Your task to perform on an android device: open app "eBay: The shopping marketplace" (install if not already installed) Image 0: 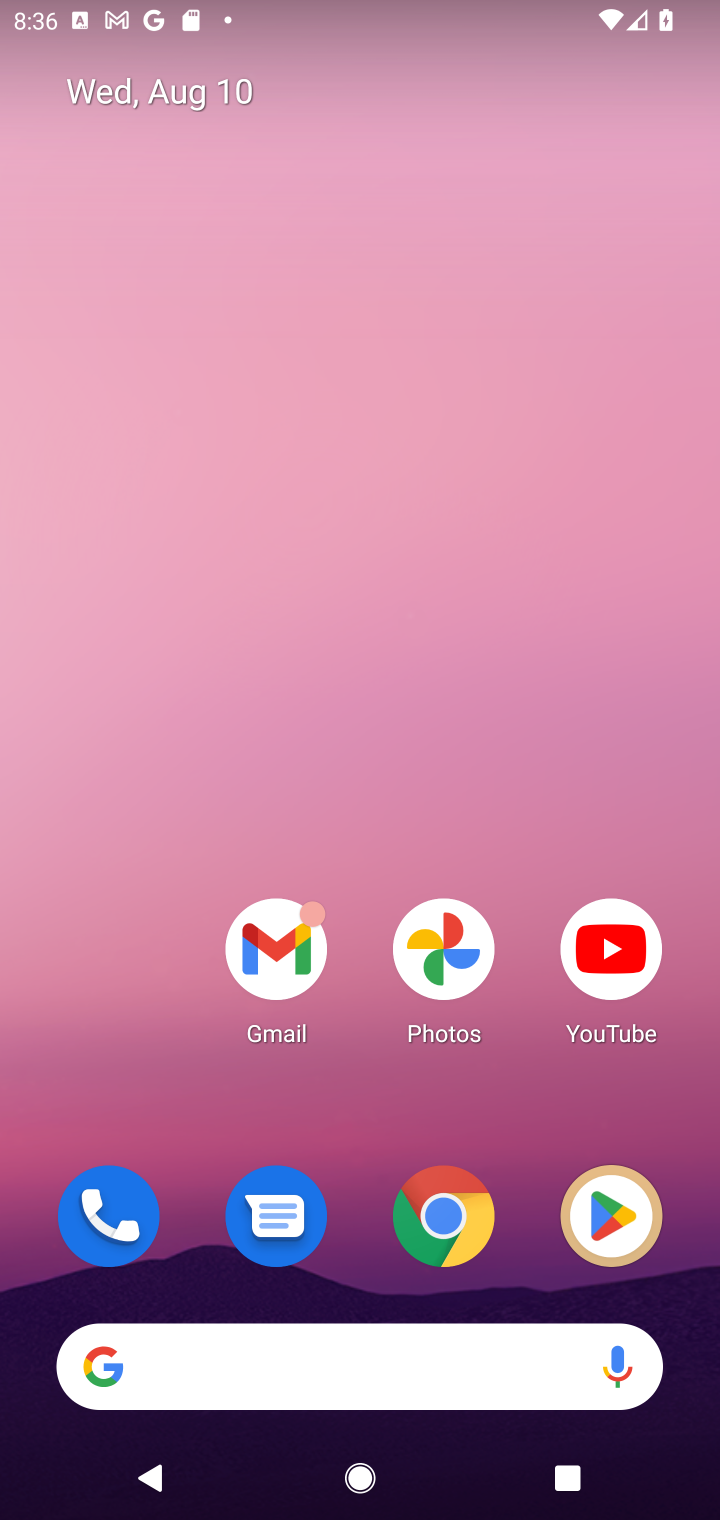
Step 0: click (609, 1202)
Your task to perform on an android device: open app "eBay: The shopping marketplace" (install if not already installed) Image 1: 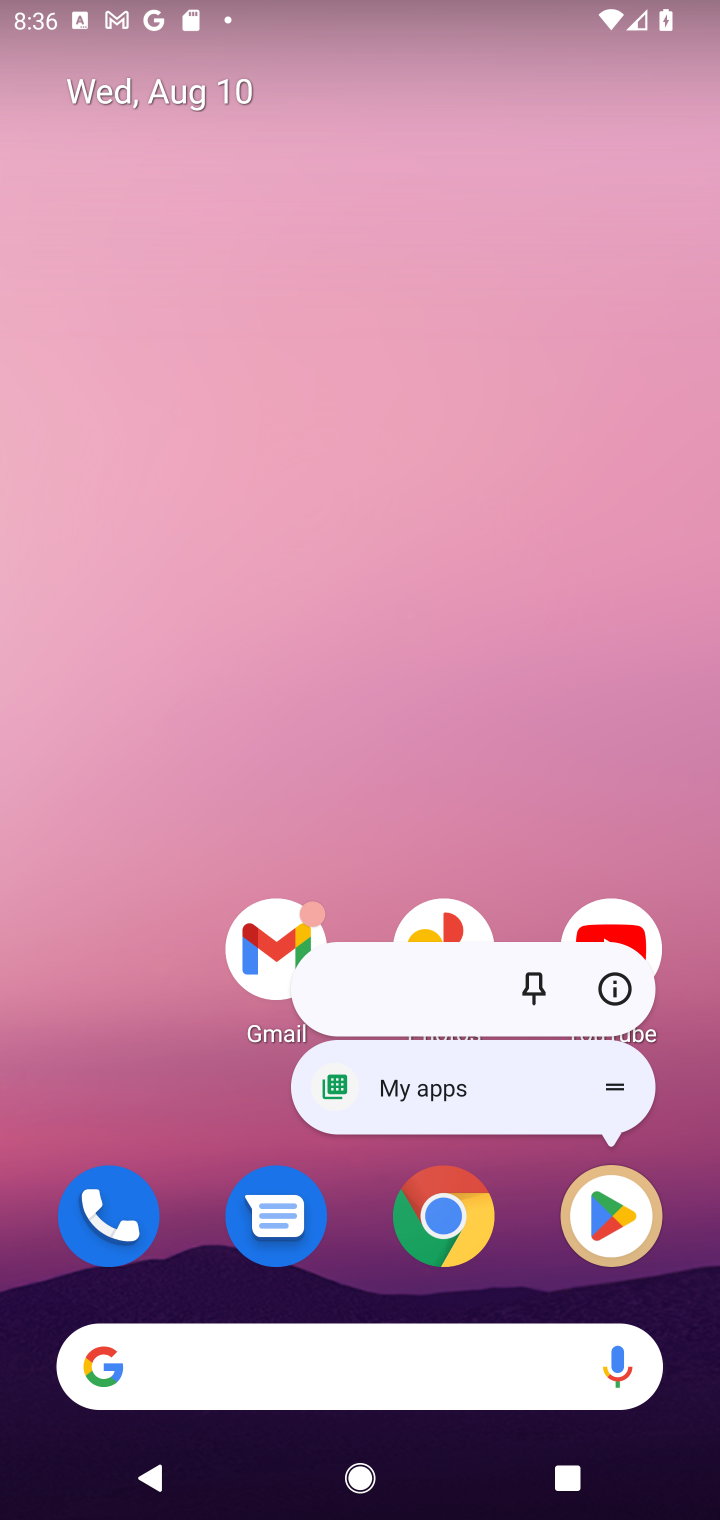
Step 1: click (627, 1208)
Your task to perform on an android device: open app "eBay: The shopping marketplace" (install if not already installed) Image 2: 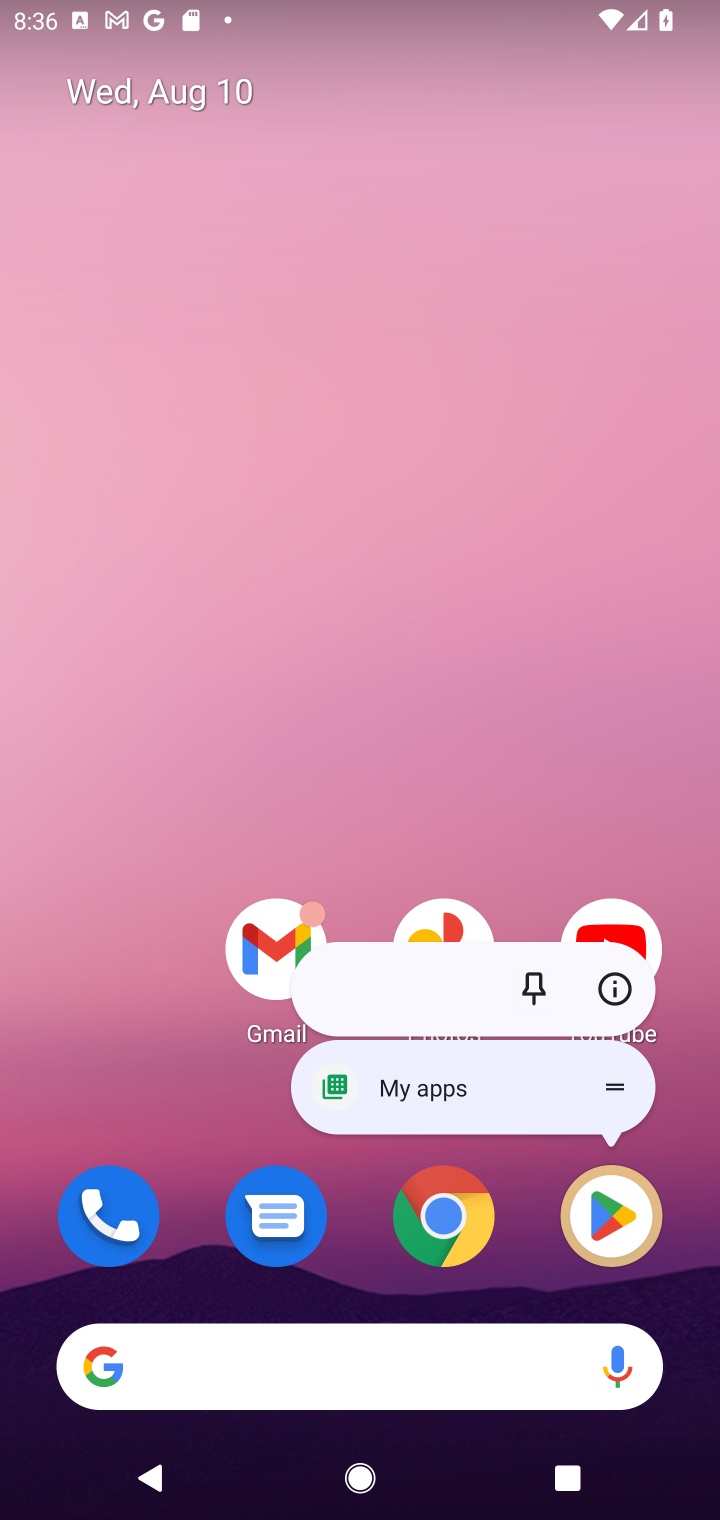
Step 2: click (605, 1211)
Your task to perform on an android device: open app "eBay: The shopping marketplace" (install if not already installed) Image 3: 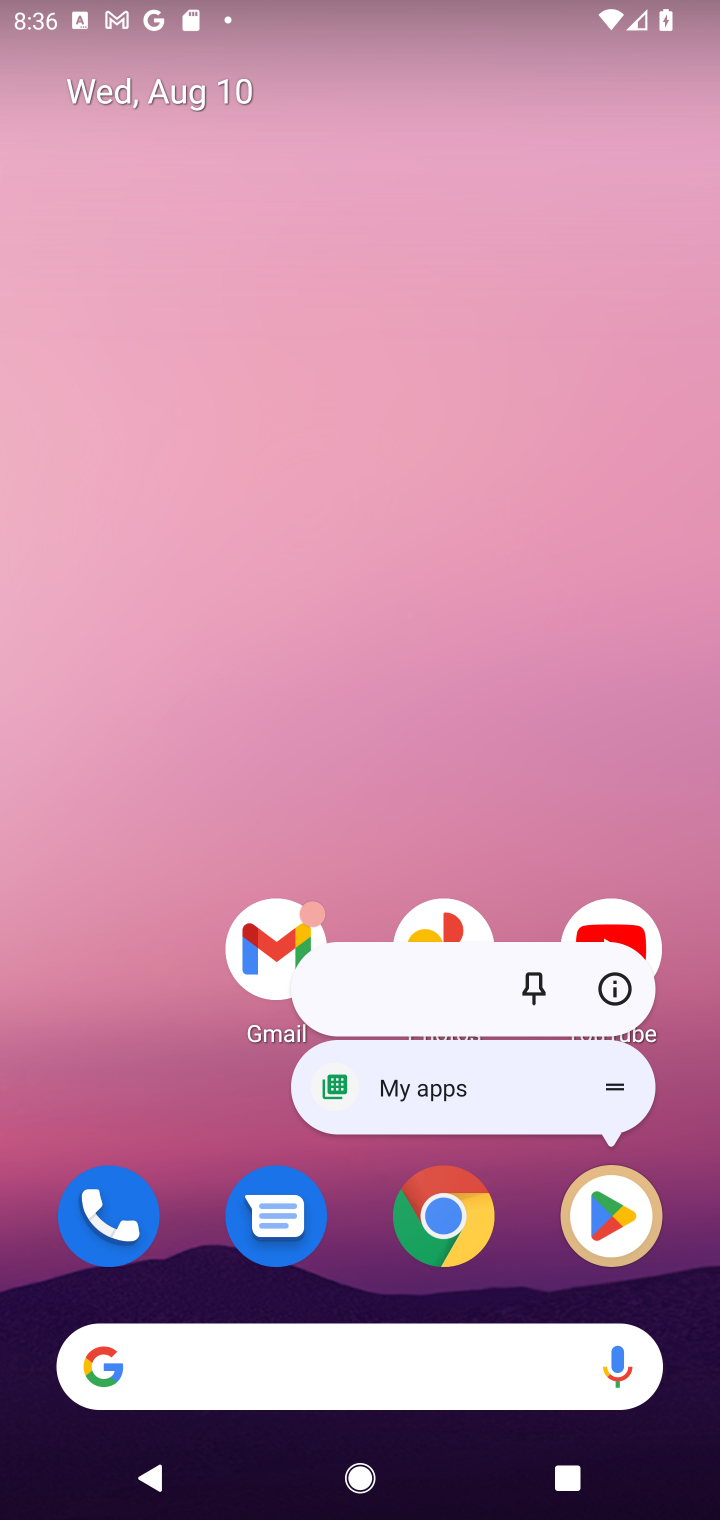
Step 3: click (613, 1220)
Your task to perform on an android device: open app "eBay: The shopping marketplace" (install if not already installed) Image 4: 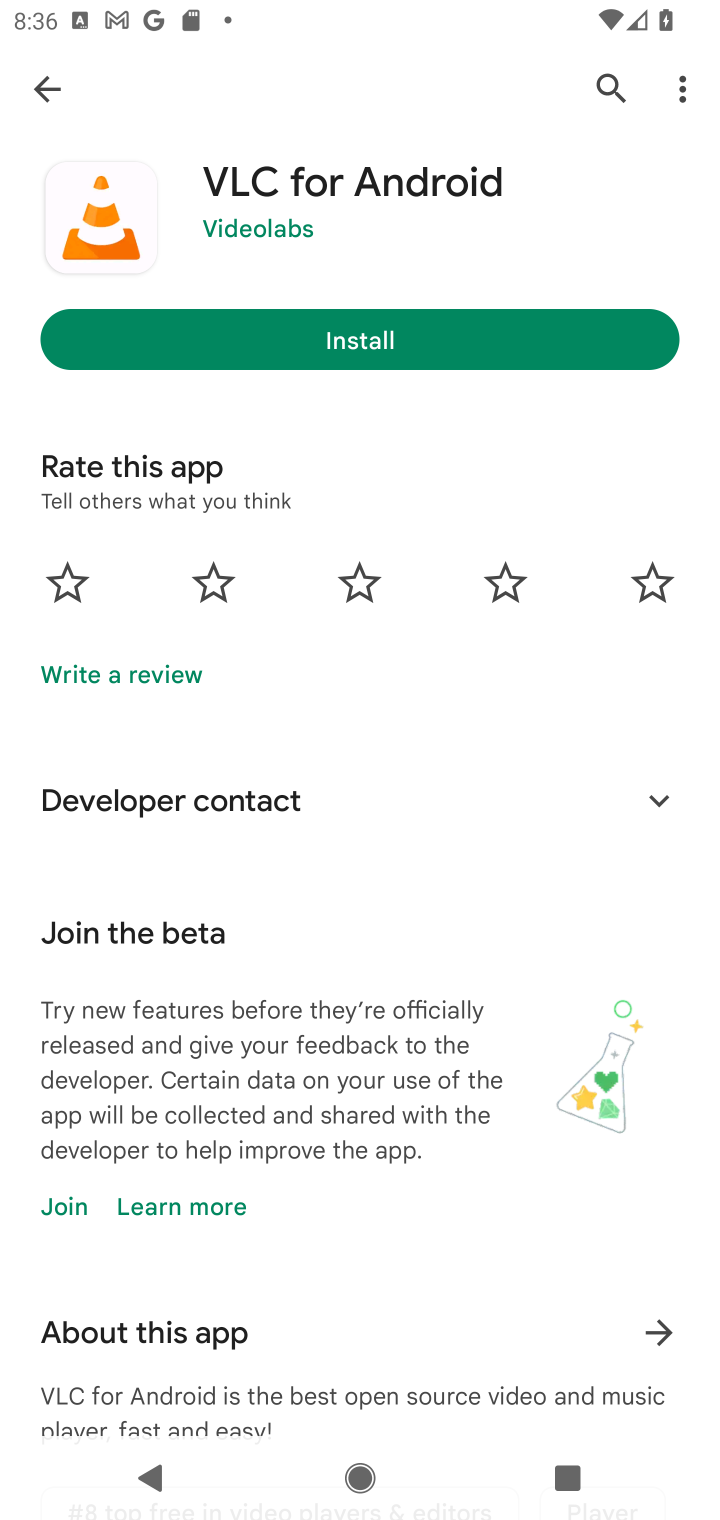
Step 4: click (599, 76)
Your task to perform on an android device: open app "eBay: The shopping marketplace" (install if not already installed) Image 5: 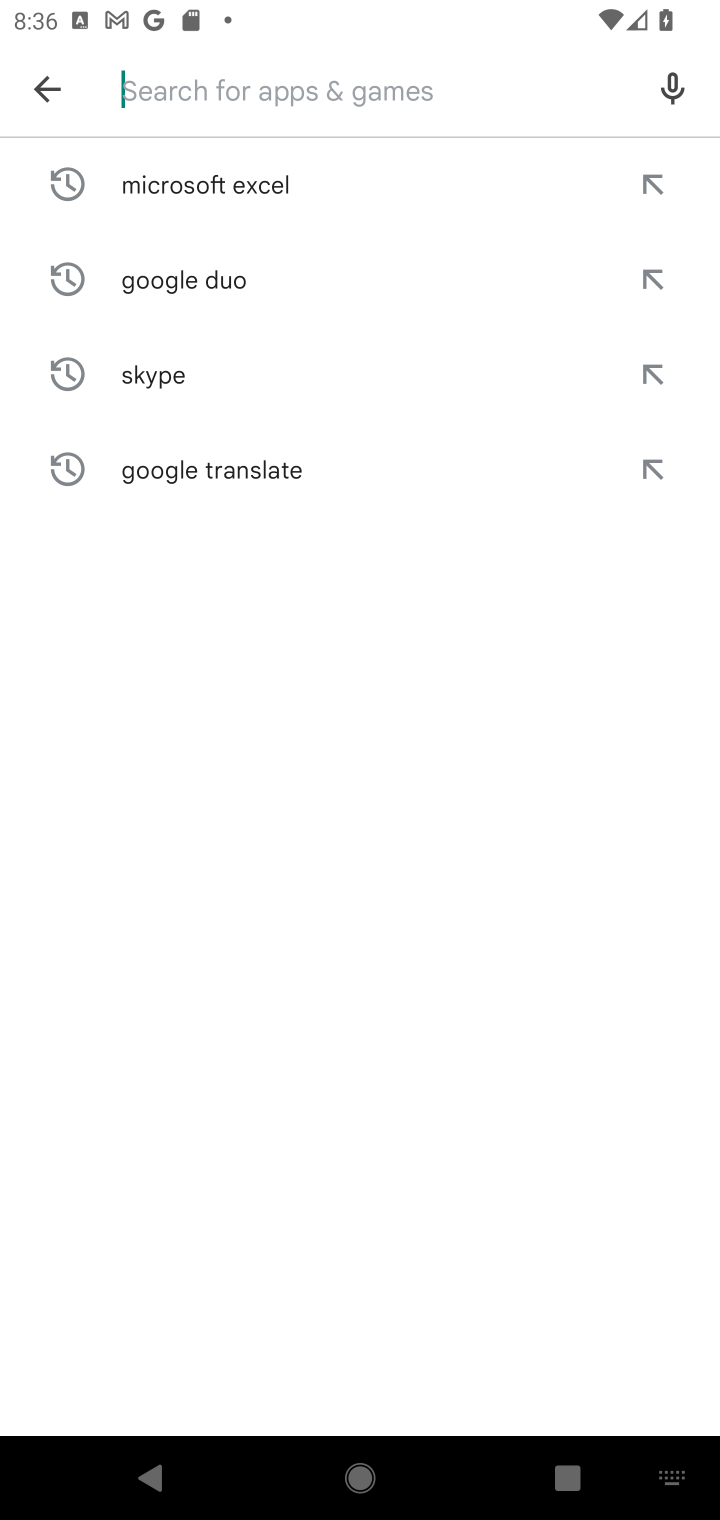
Step 5: click (294, 93)
Your task to perform on an android device: open app "eBay: The shopping marketplace" (install if not already installed) Image 6: 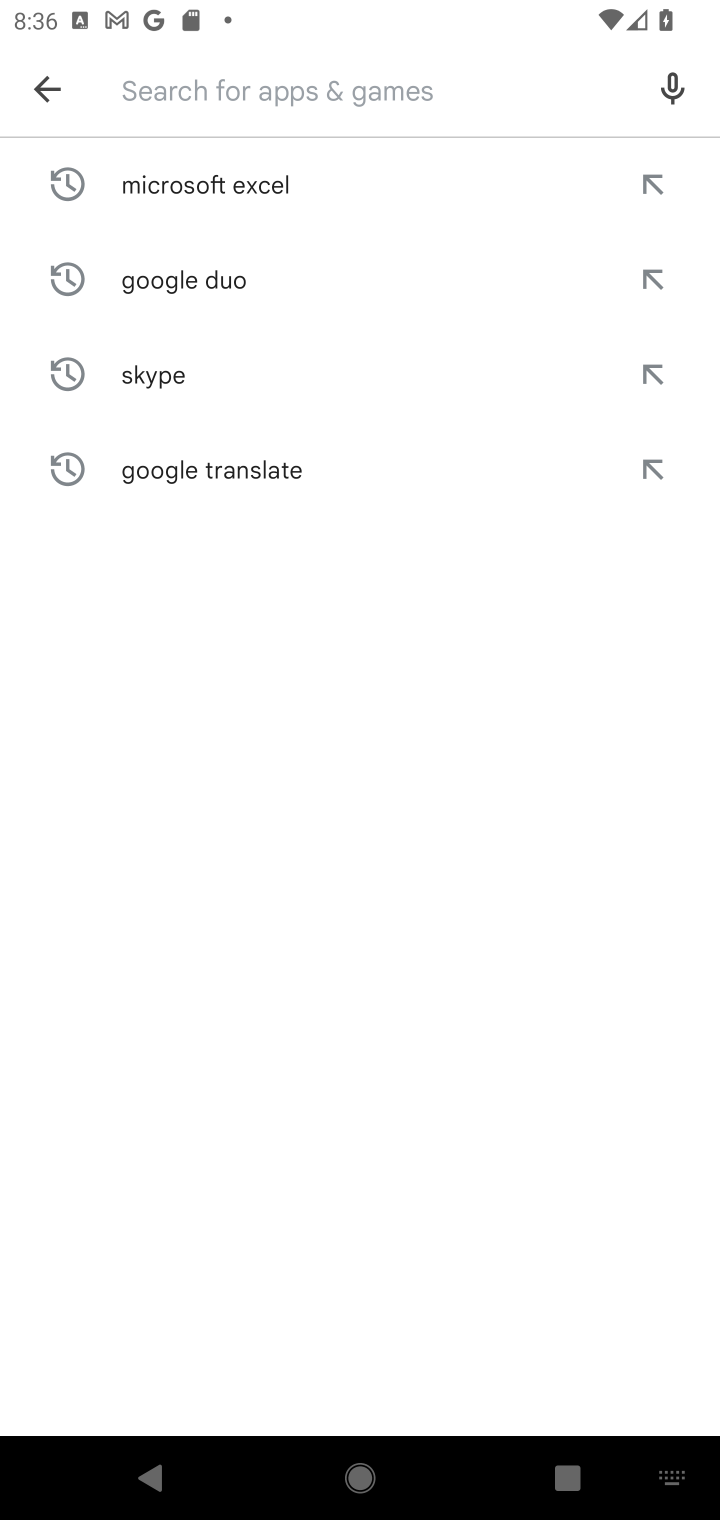
Step 6: type "ebay"
Your task to perform on an android device: open app "eBay: The shopping marketplace" (install if not already installed) Image 7: 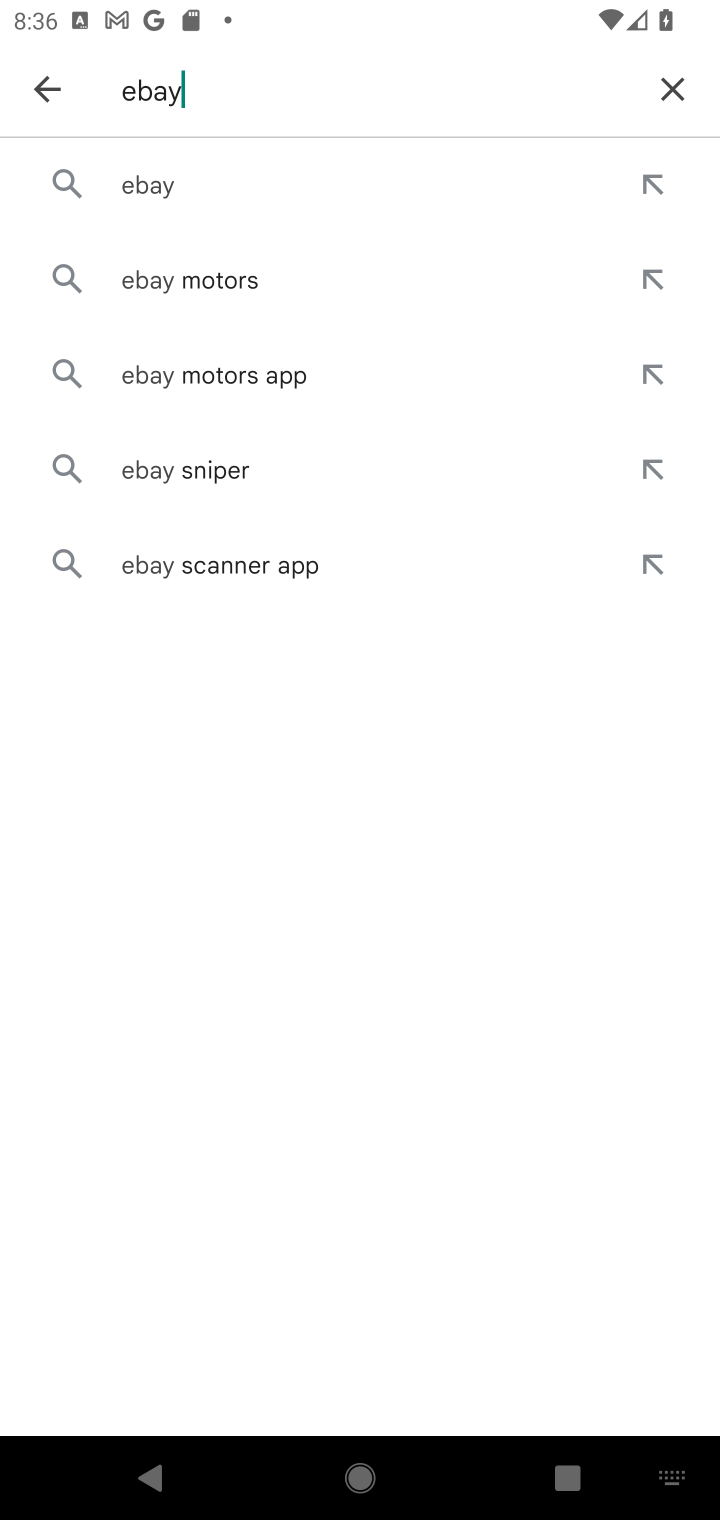
Step 7: click (256, 190)
Your task to perform on an android device: open app "eBay: The shopping marketplace" (install if not already installed) Image 8: 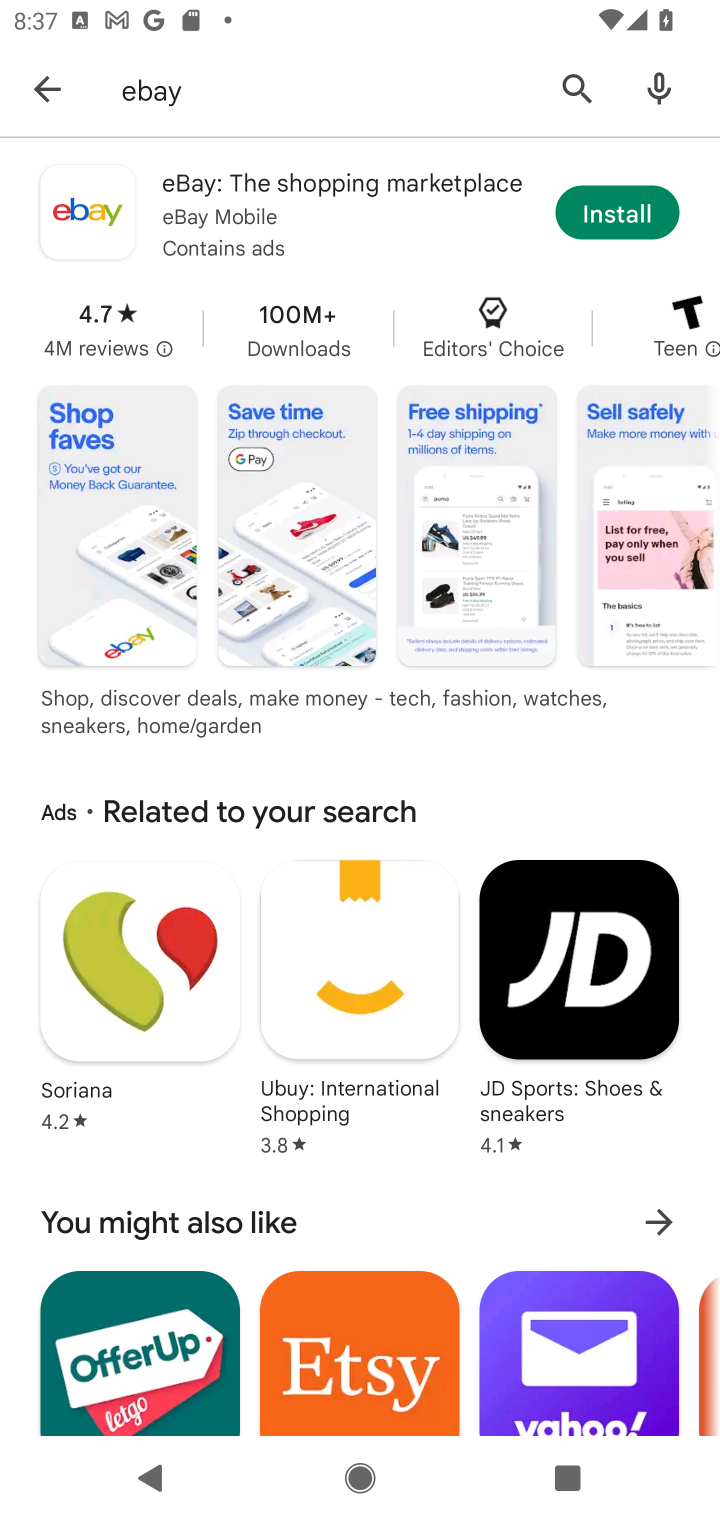
Step 8: click (597, 212)
Your task to perform on an android device: open app "eBay: The shopping marketplace" (install if not already installed) Image 9: 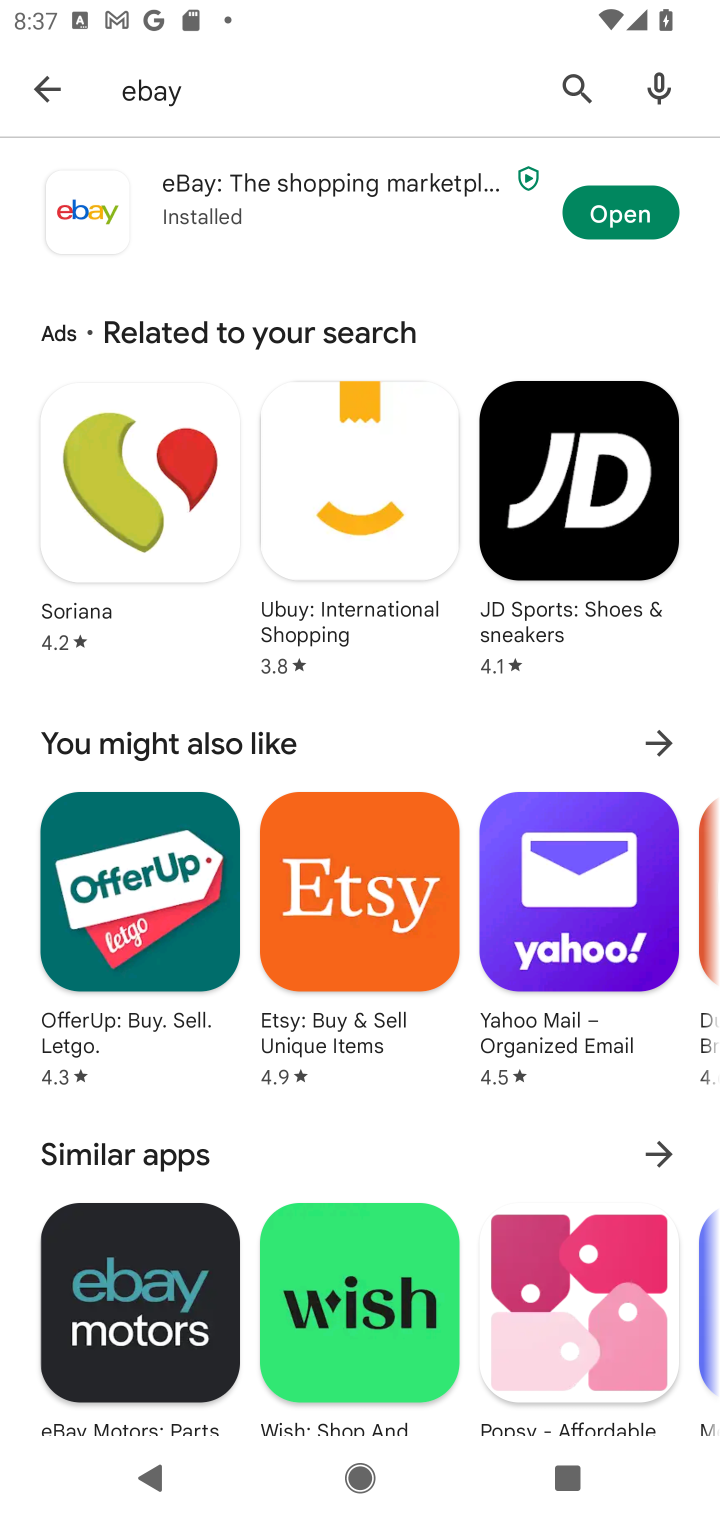
Step 9: press back button
Your task to perform on an android device: open app "eBay: The shopping marketplace" (install if not already installed) Image 10: 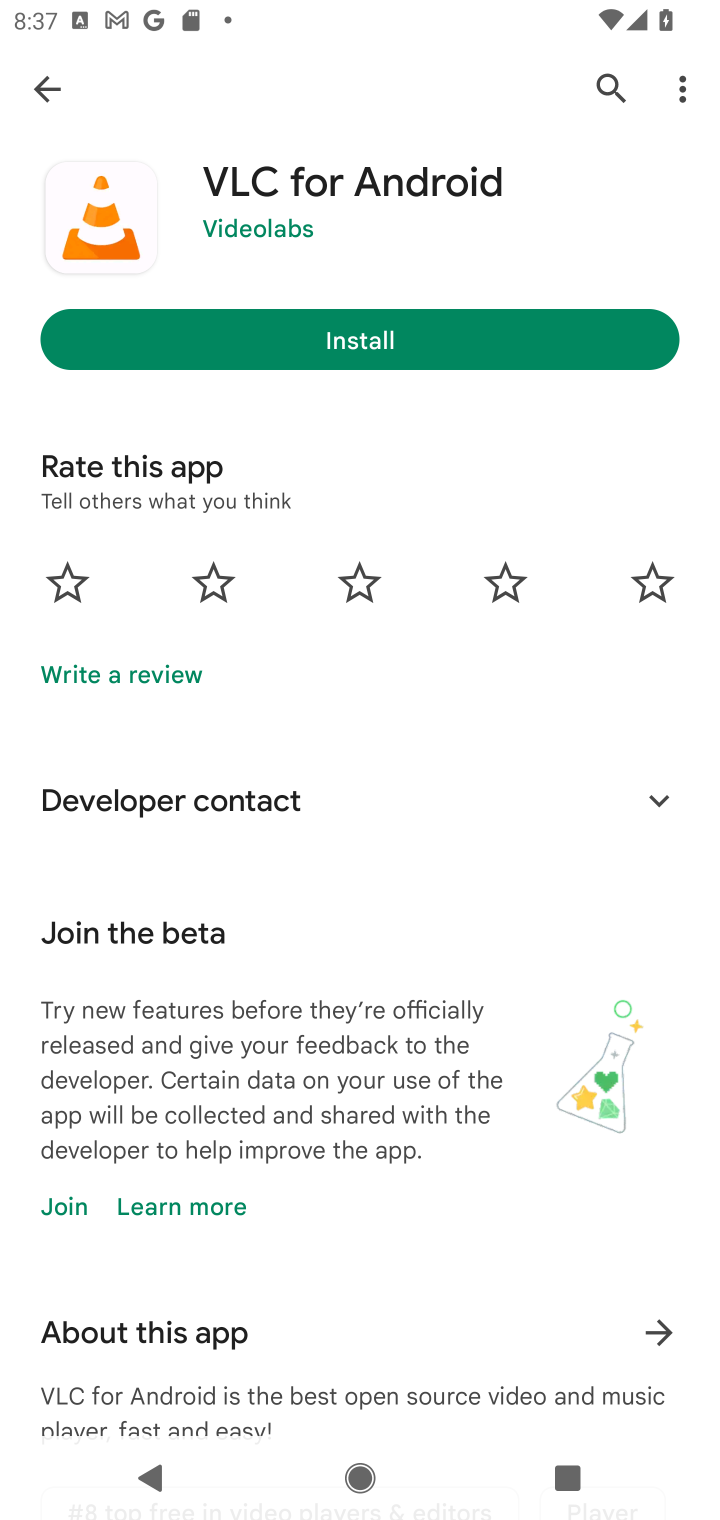
Step 10: click (592, 82)
Your task to perform on an android device: open app "eBay: The shopping marketplace" (install if not already installed) Image 11: 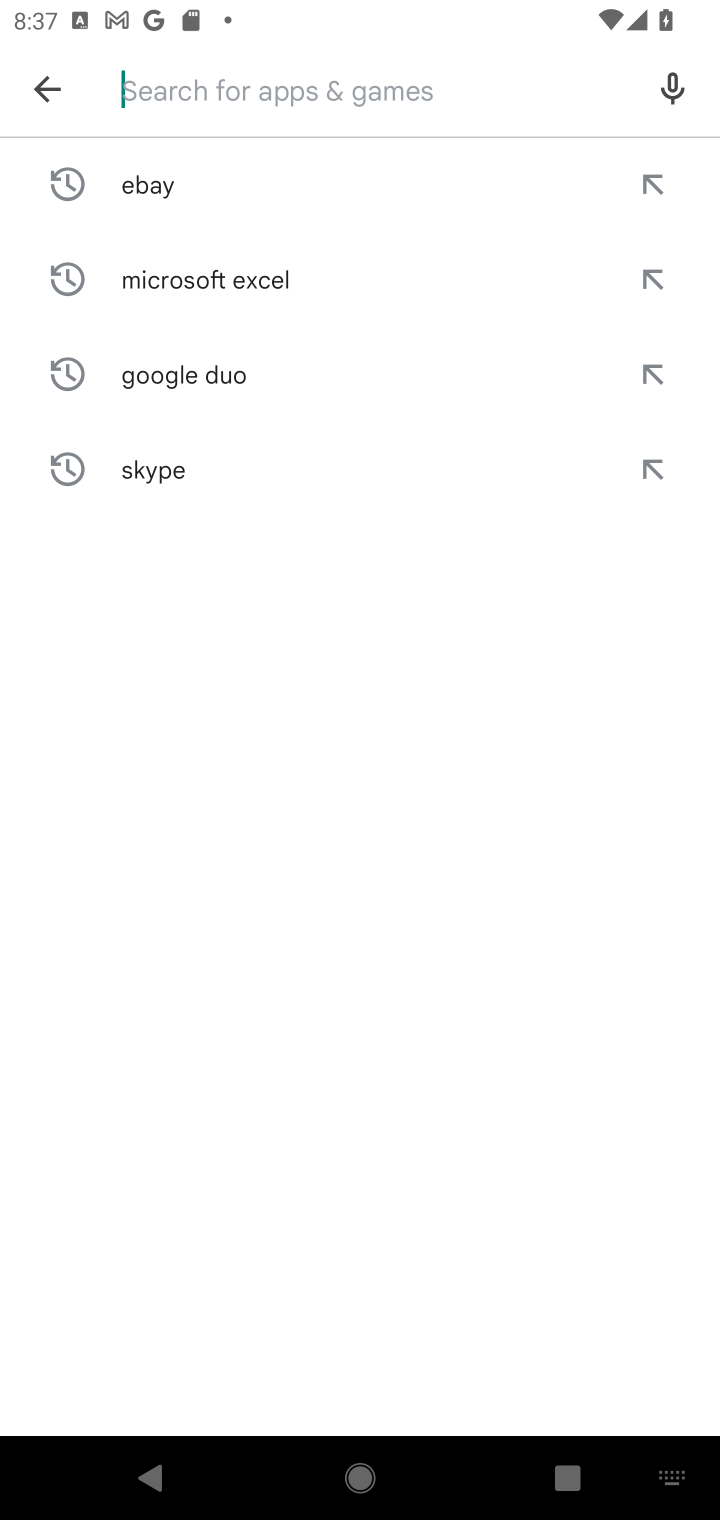
Step 11: click (131, 175)
Your task to perform on an android device: open app "eBay: The shopping marketplace" (install if not already installed) Image 12: 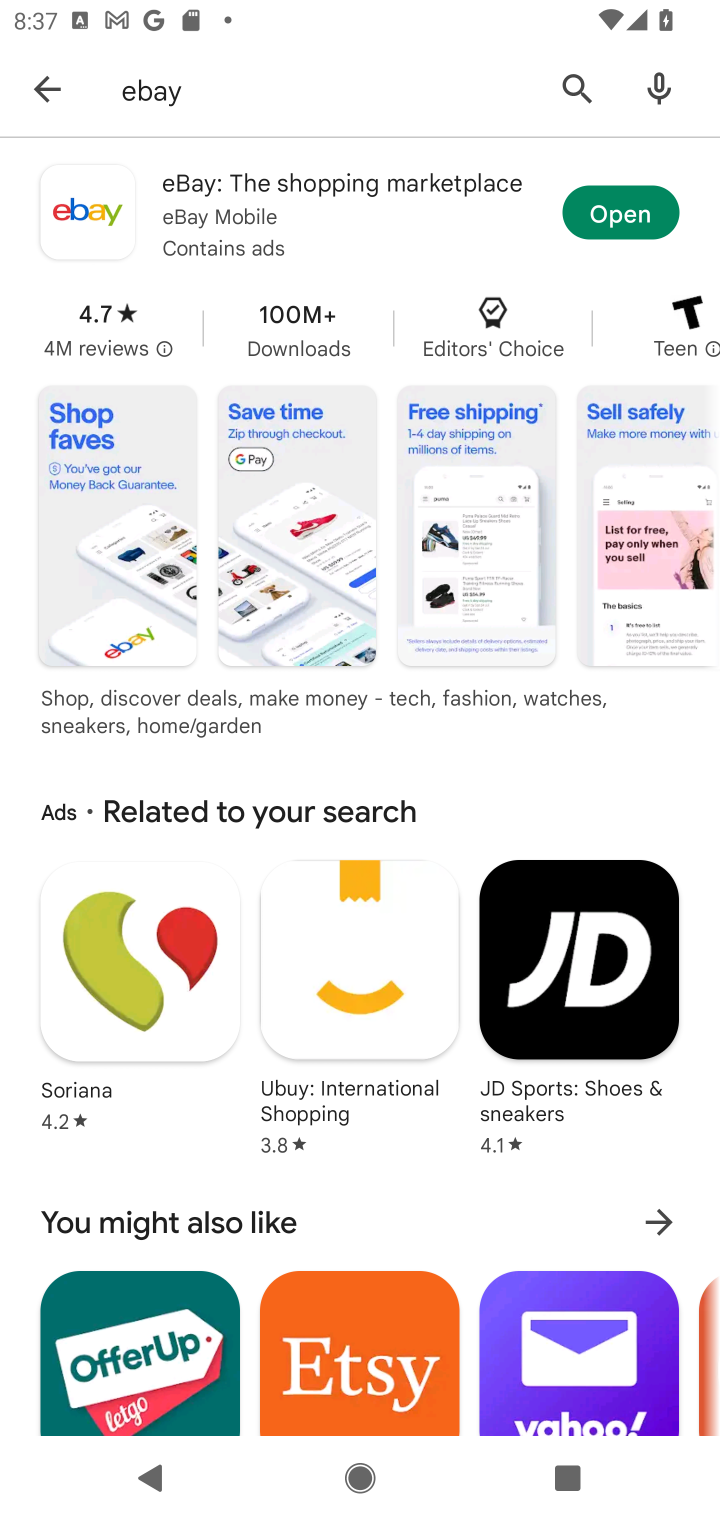
Step 12: click (654, 211)
Your task to perform on an android device: open app "eBay: The shopping marketplace" (install if not already installed) Image 13: 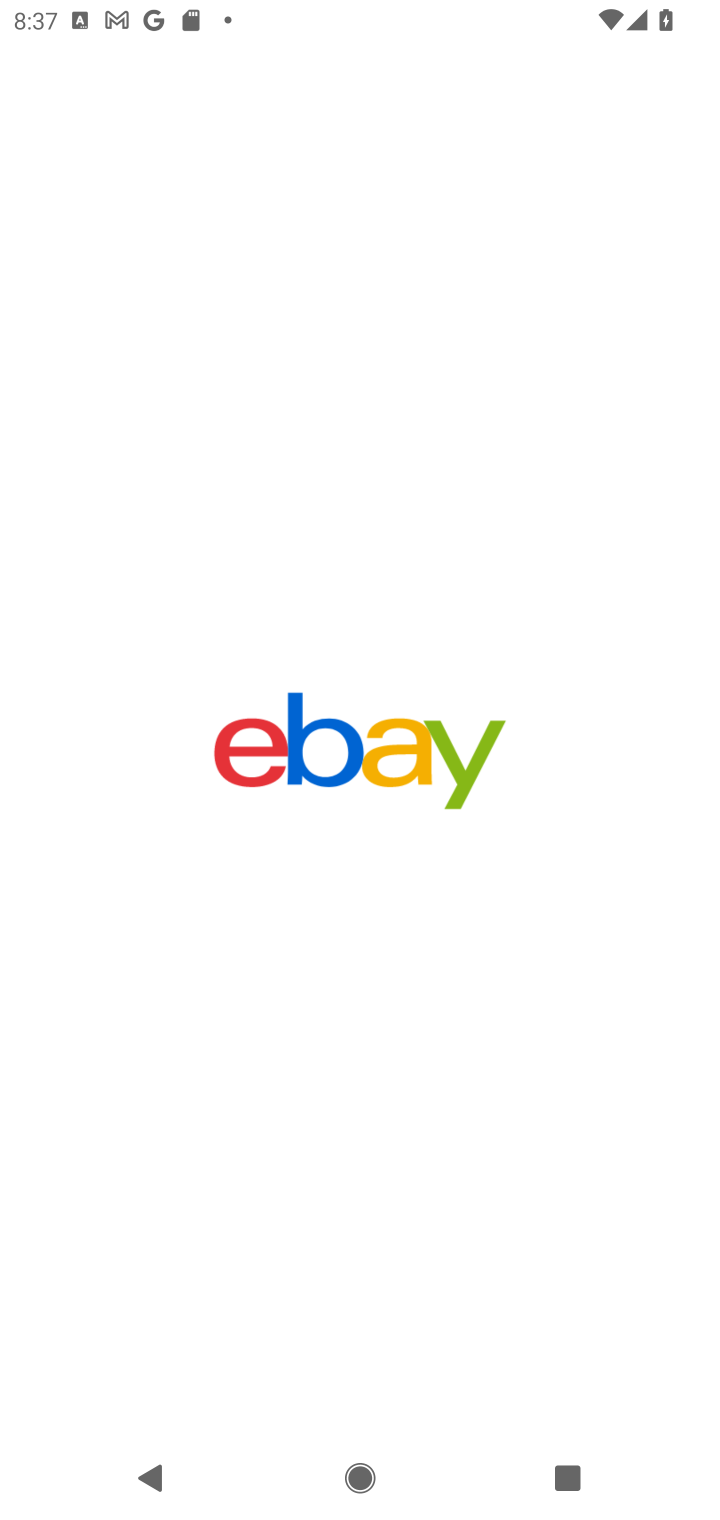
Step 13: task complete